Your task to perform on an android device: Go to sound settings Image 0: 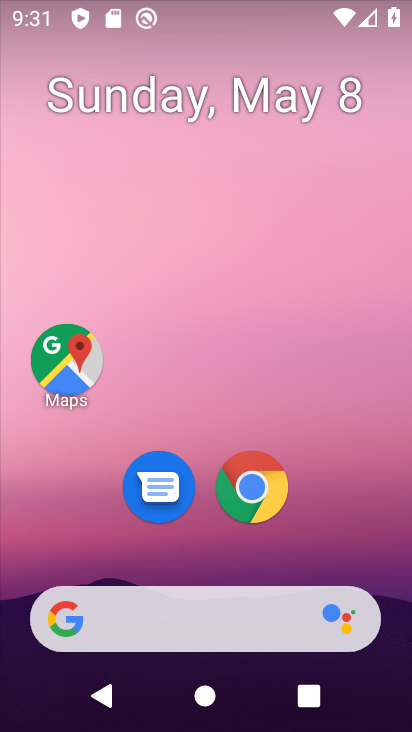
Step 0: drag from (173, 588) to (302, 95)
Your task to perform on an android device: Go to sound settings Image 1: 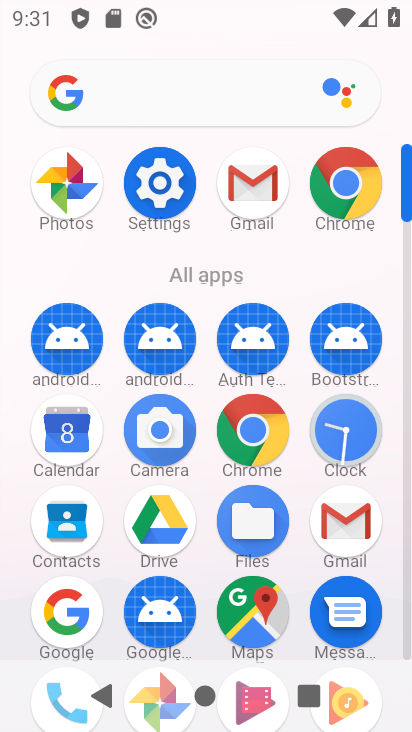
Step 1: drag from (196, 706) to (274, 463)
Your task to perform on an android device: Go to sound settings Image 2: 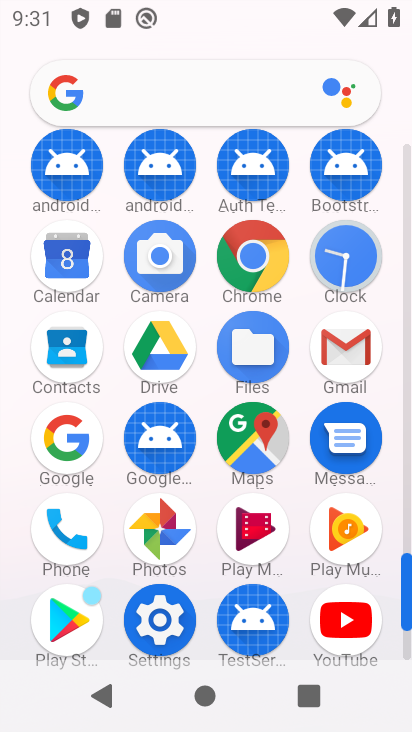
Step 2: click (183, 615)
Your task to perform on an android device: Go to sound settings Image 3: 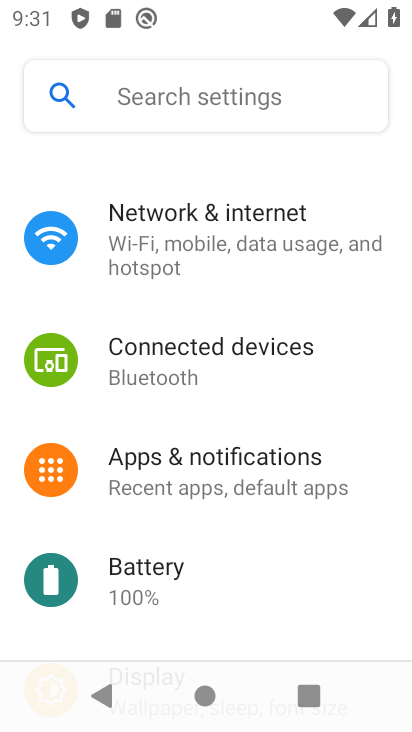
Step 3: drag from (183, 615) to (328, 305)
Your task to perform on an android device: Go to sound settings Image 4: 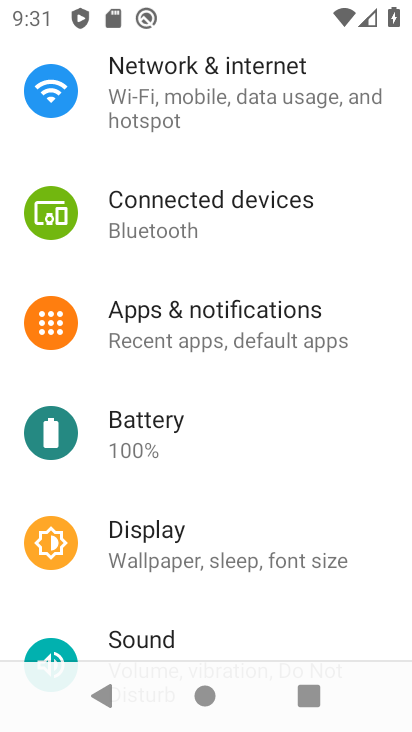
Step 4: drag from (229, 627) to (360, 243)
Your task to perform on an android device: Go to sound settings Image 5: 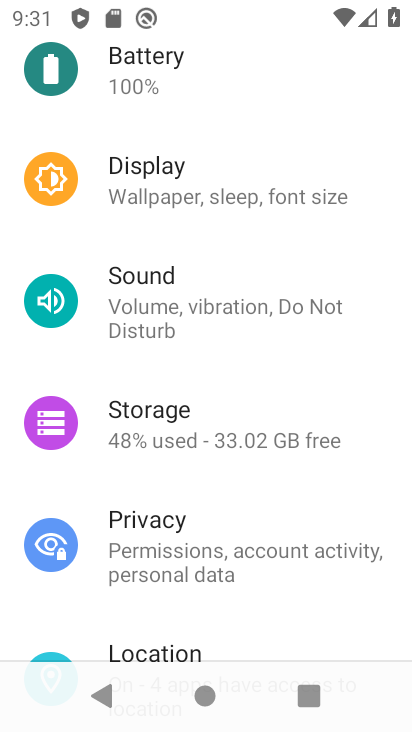
Step 5: drag from (261, 628) to (340, 419)
Your task to perform on an android device: Go to sound settings Image 6: 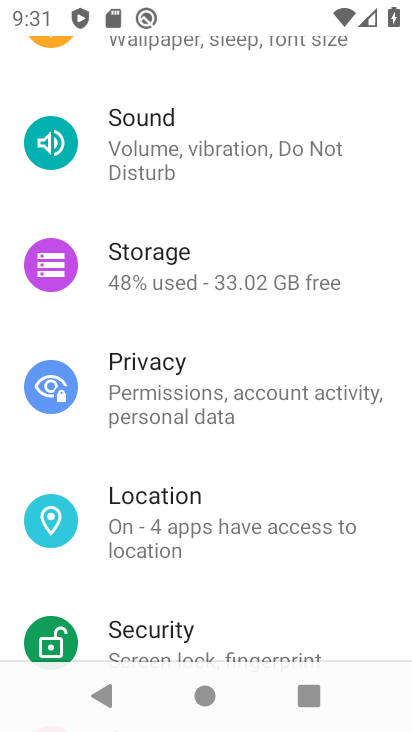
Step 6: click (265, 164)
Your task to perform on an android device: Go to sound settings Image 7: 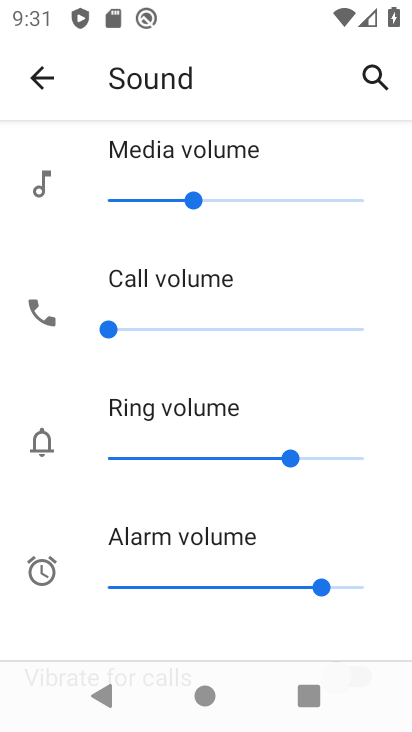
Step 7: task complete